Your task to perform on an android device: Add dell xps to the cart on bestbuy.com, then select checkout. Image 0: 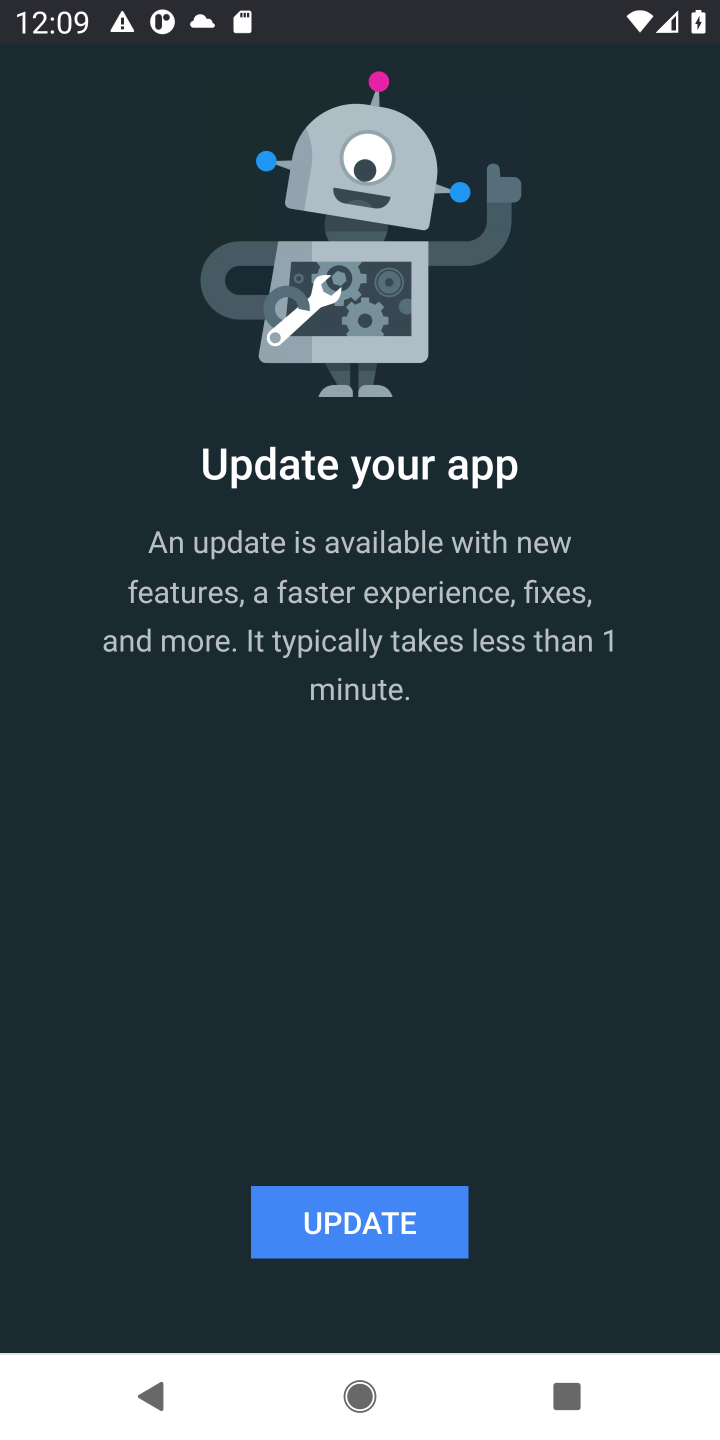
Step 0: press home button
Your task to perform on an android device: Add dell xps to the cart on bestbuy.com, then select checkout. Image 1: 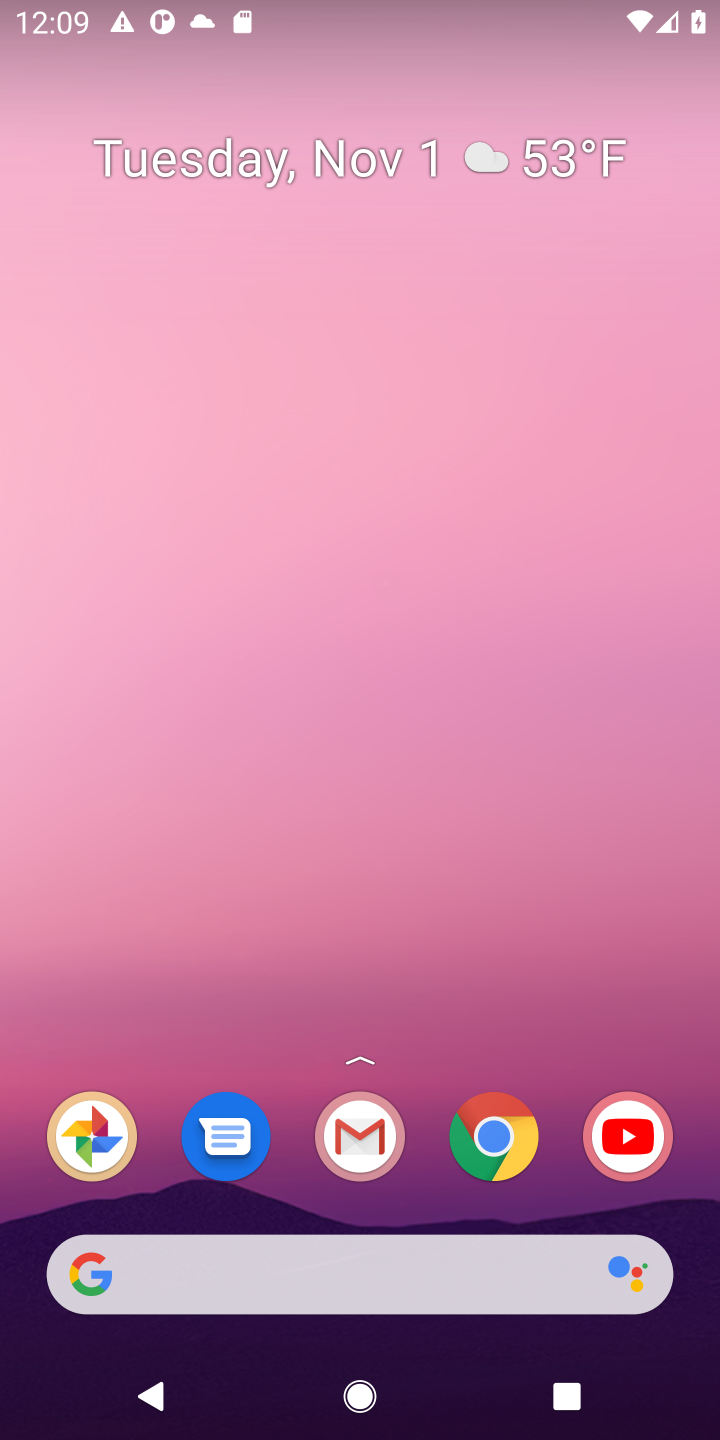
Step 1: click (124, 1268)
Your task to perform on an android device: Add dell xps to the cart on bestbuy.com, then select checkout. Image 2: 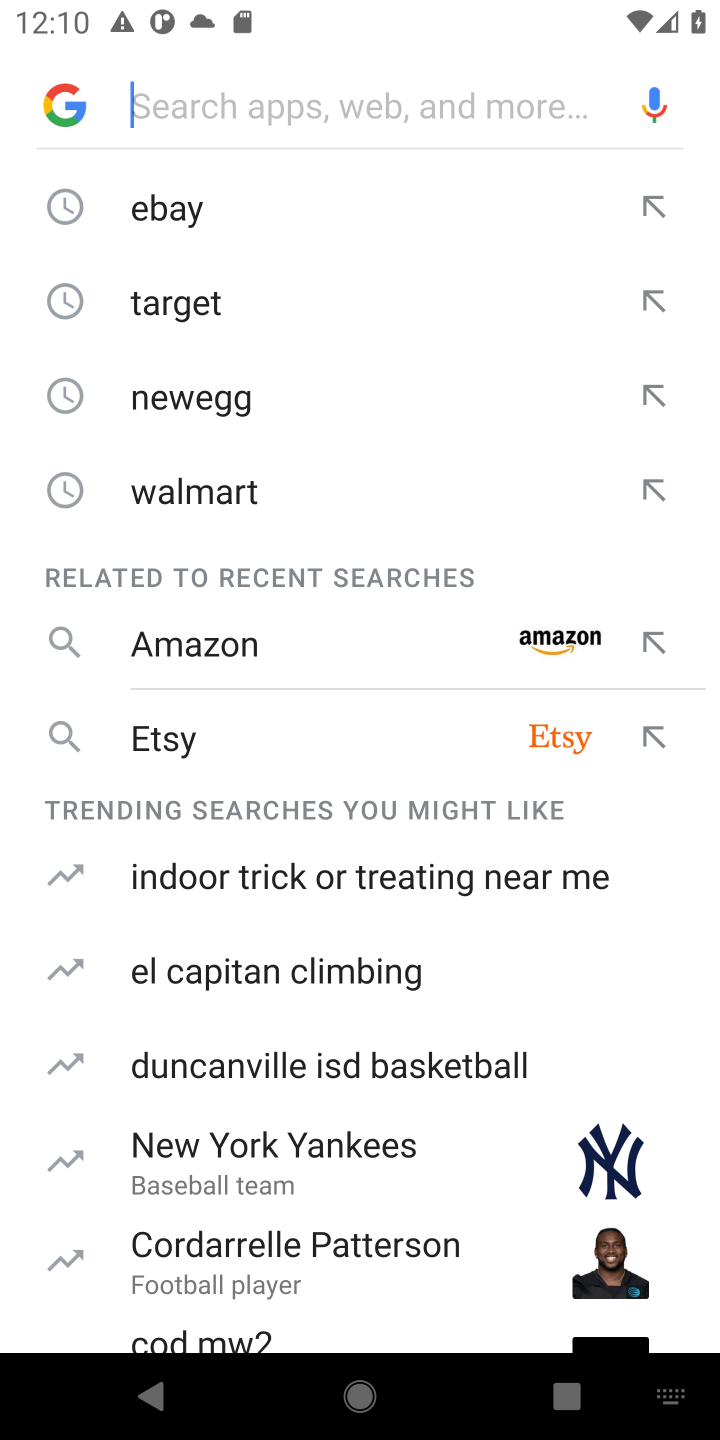
Step 2: type "bestbuy.com"
Your task to perform on an android device: Add dell xps to the cart on bestbuy.com, then select checkout. Image 3: 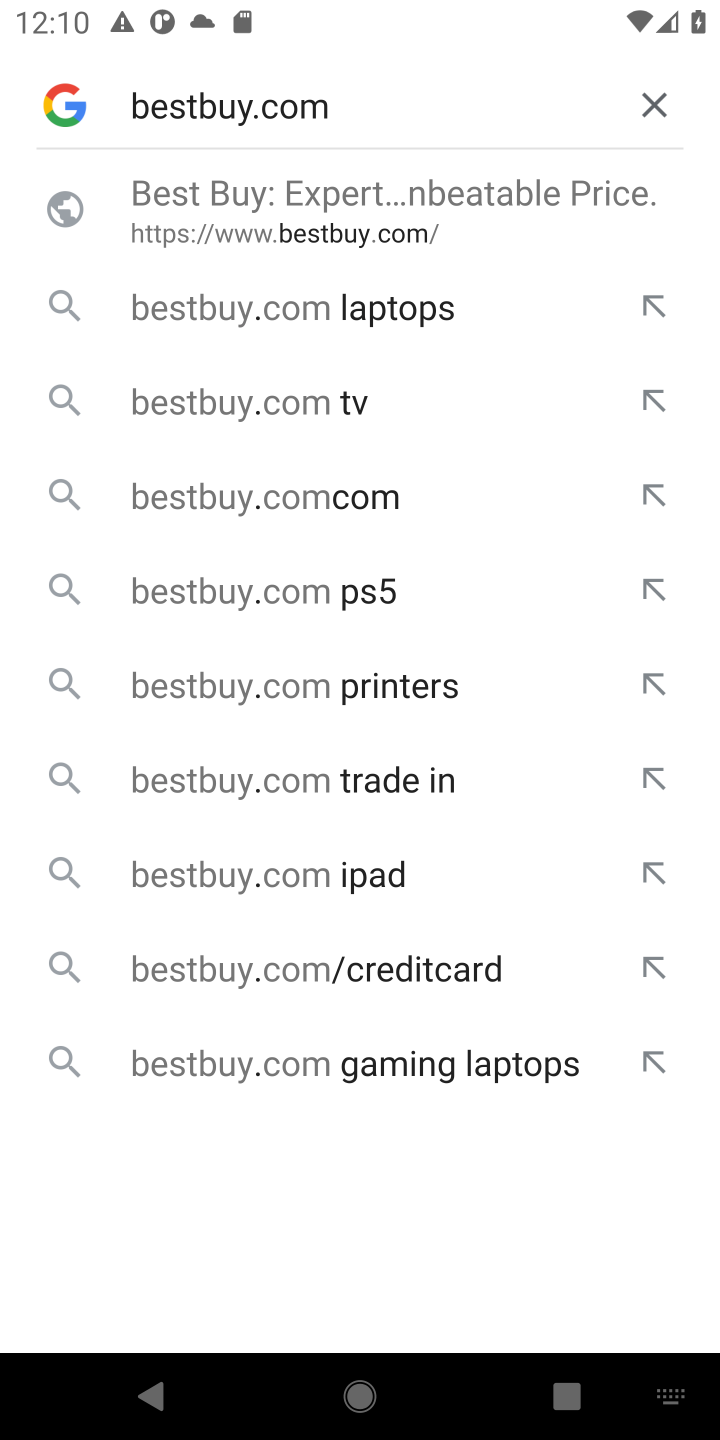
Step 3: press enter
Your task to perform on an android device: Add dell xps to the cart on bestbuy.com, then select checkout. Image 4: 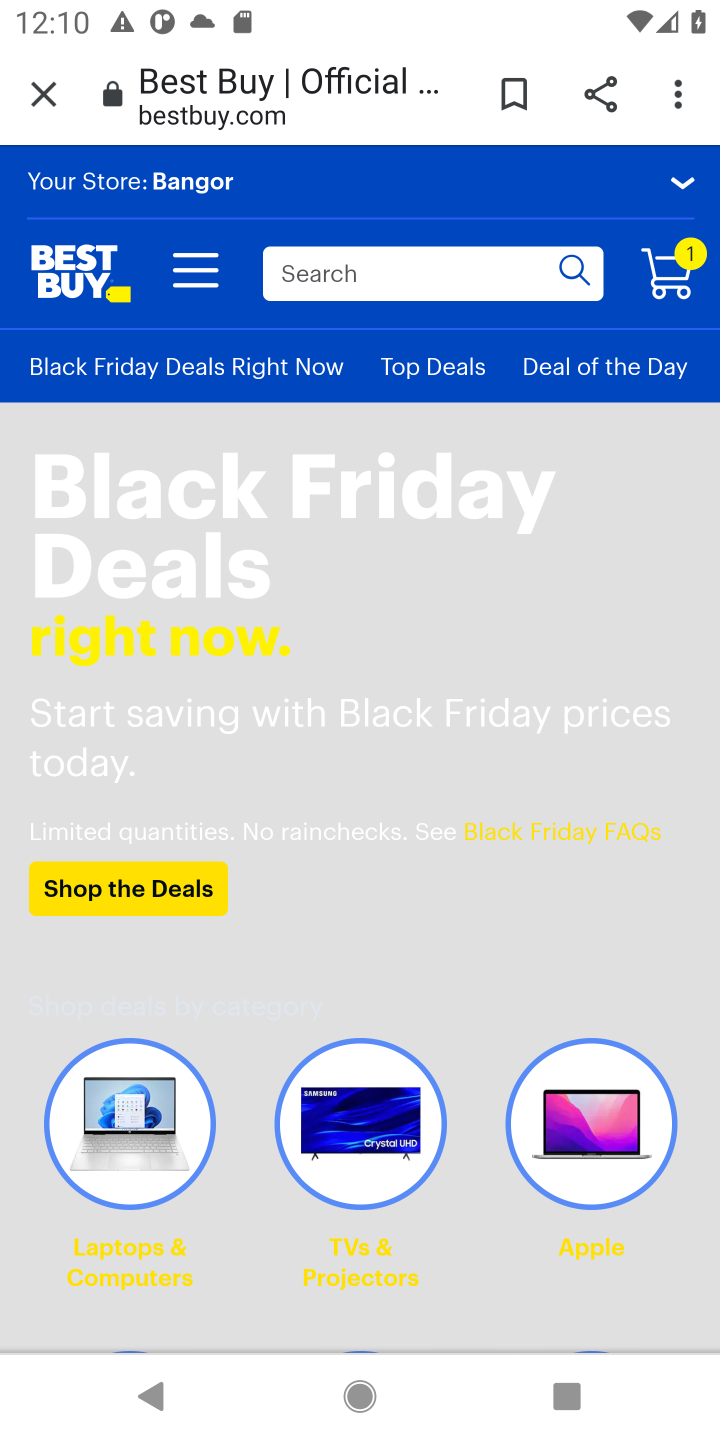
Step 4: click (316, 265)
Your task to perform on an android device: Add dell xps to the cart on bestbuy.com, then select checkout. Image 5: 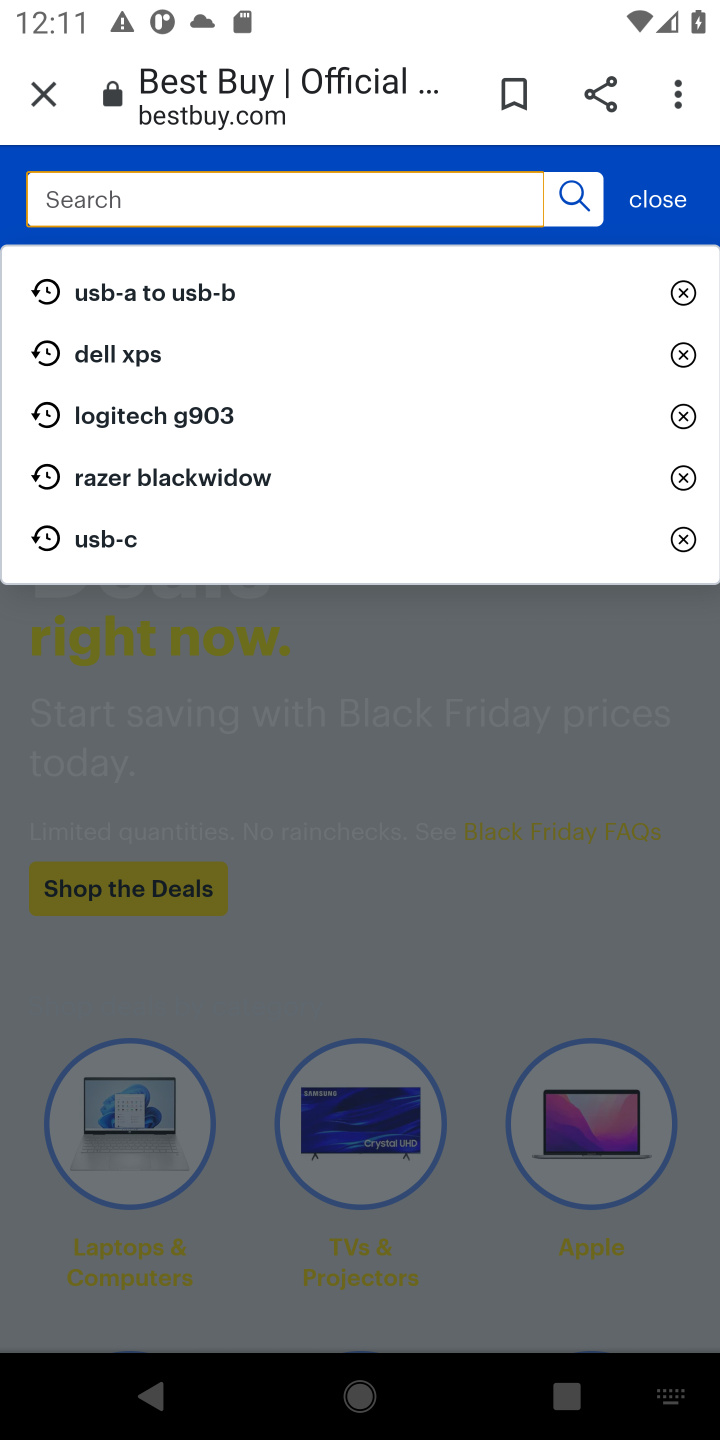
Step 5: press enter
Your task to perform on an android device: Add dell xps to the cart on bestbuy.com, then select checkout. Image 6: 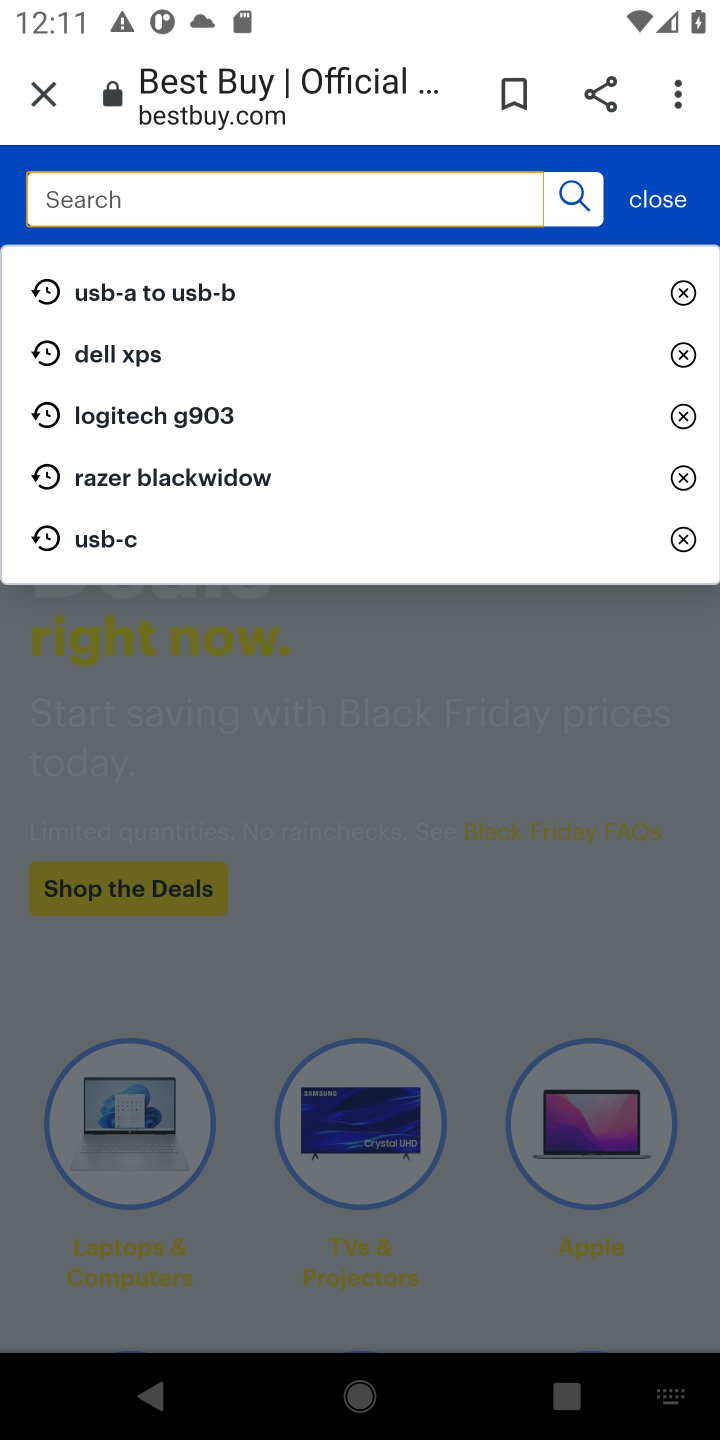
Step 6: type "dell xps"
Your task to perform on an android device: Add dell xps to the cart on bestbuy.com, then select checkout. Image 7: 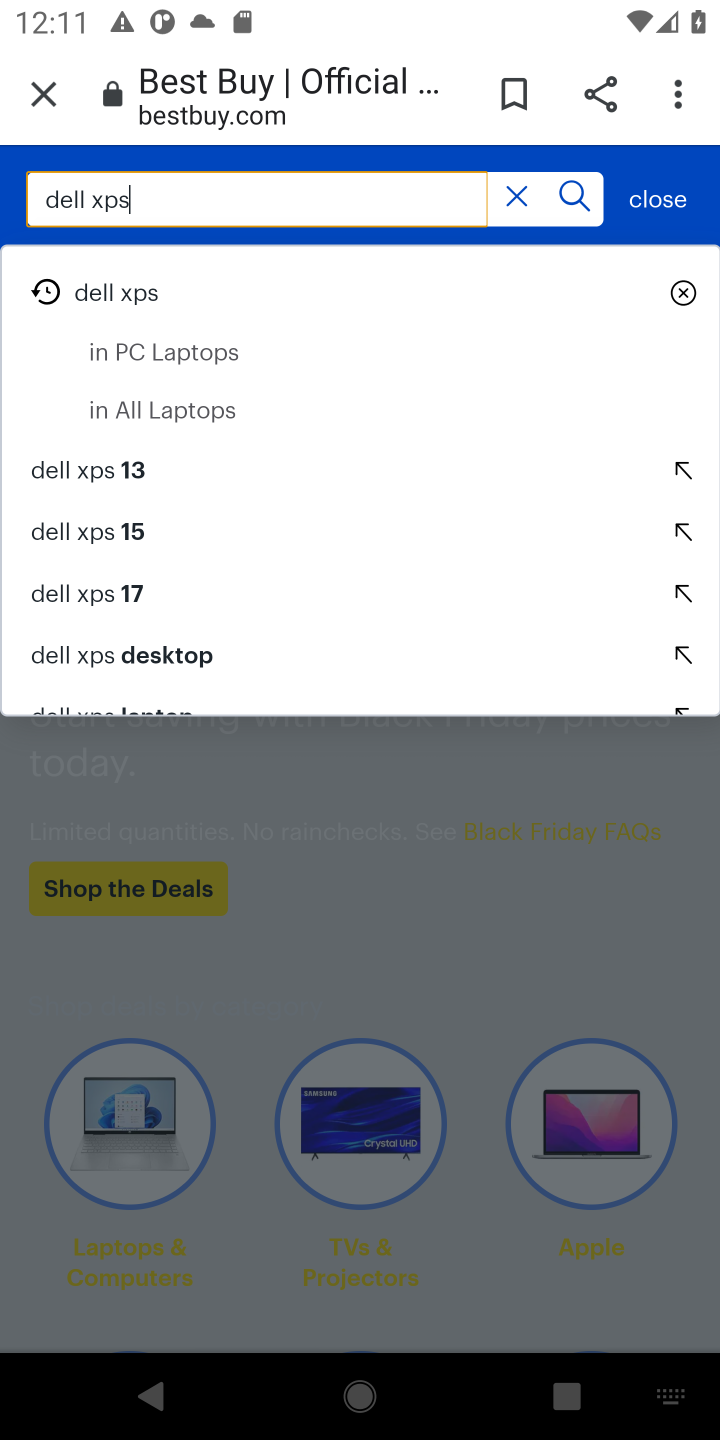
Step 7: press enter
Your task to perform on an android device: Add dell xps to the cart on bestbuy.com, then select checkout. Image 8: 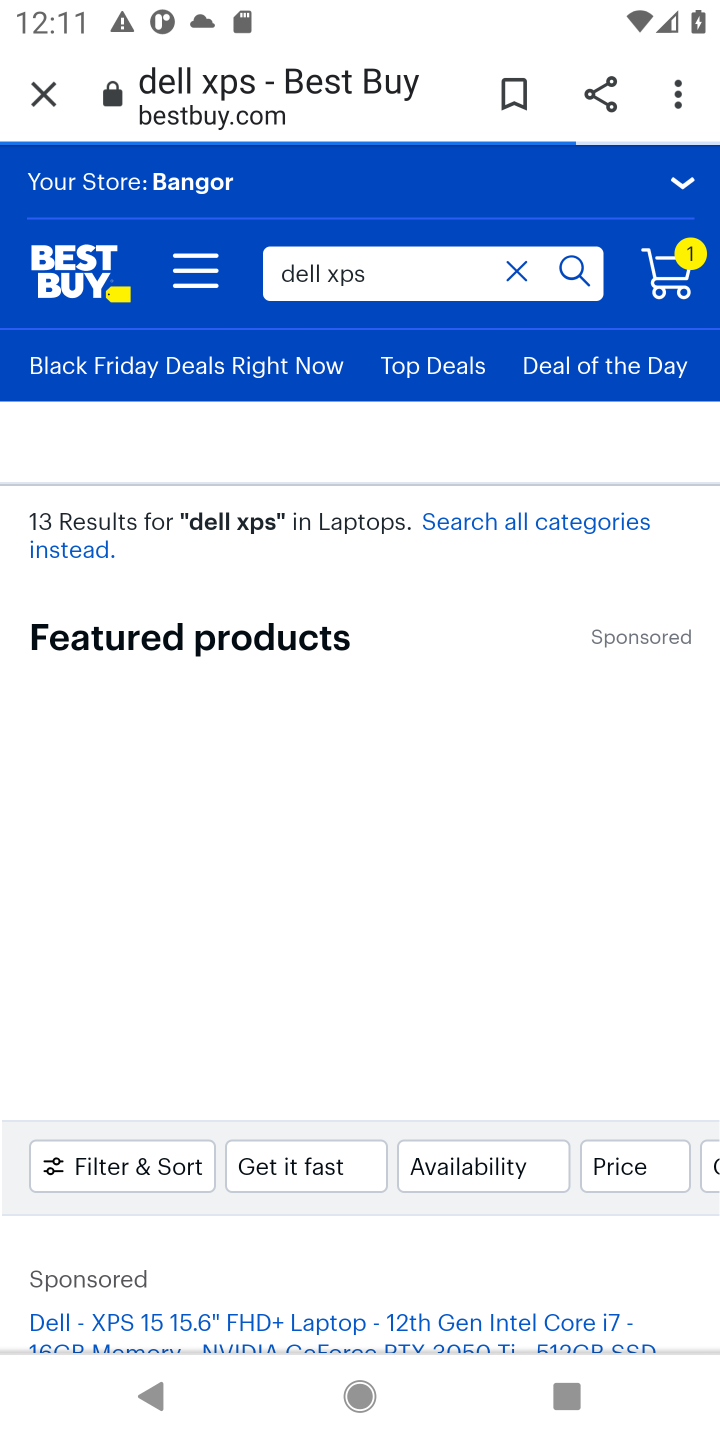
Step 8: drag from (503, 1203) to (494, 532)
Your task to perform on an android device: Add dell xps to the cart on bestbuy.com, then select checkout. Image 9: 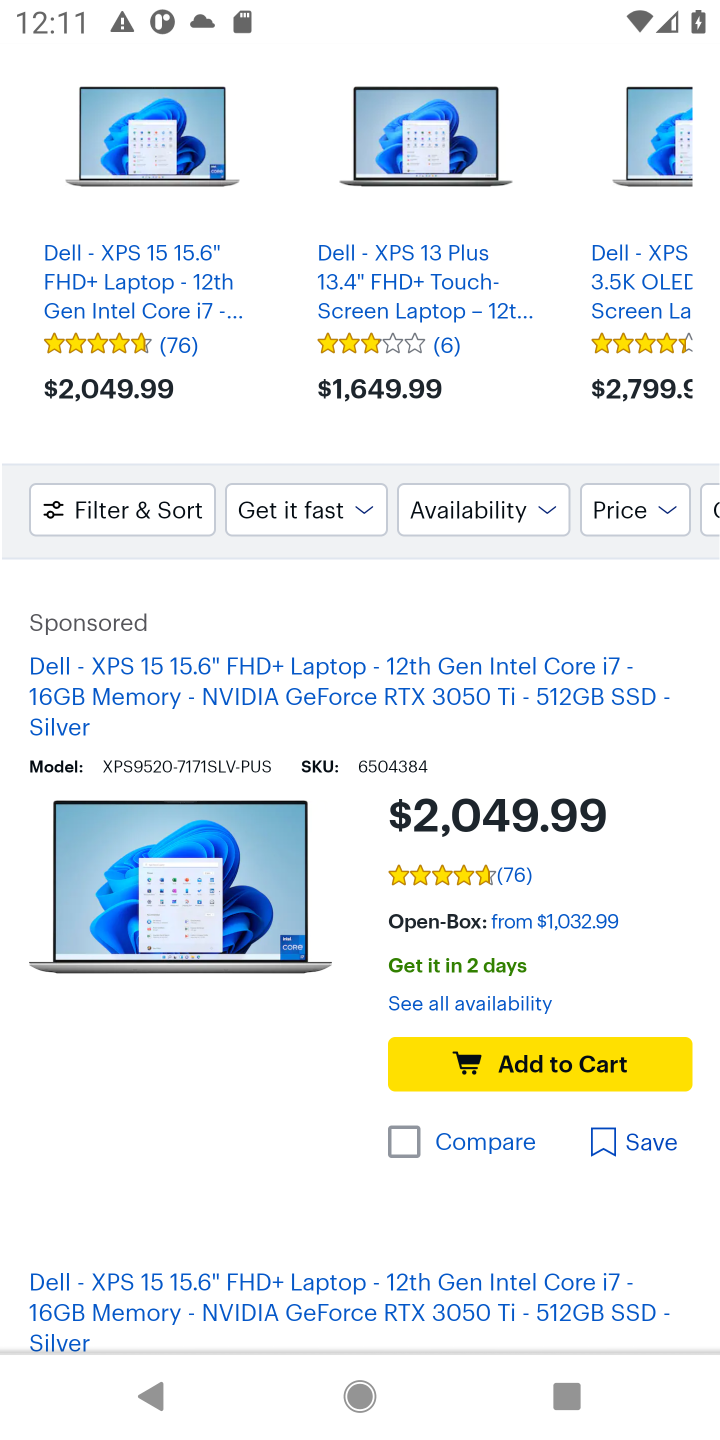
Step 9: click (514, 1033)
Your task to perform on an android device: Add dell xps to the cart on bestbuy.com, then select checkout. Image 10: 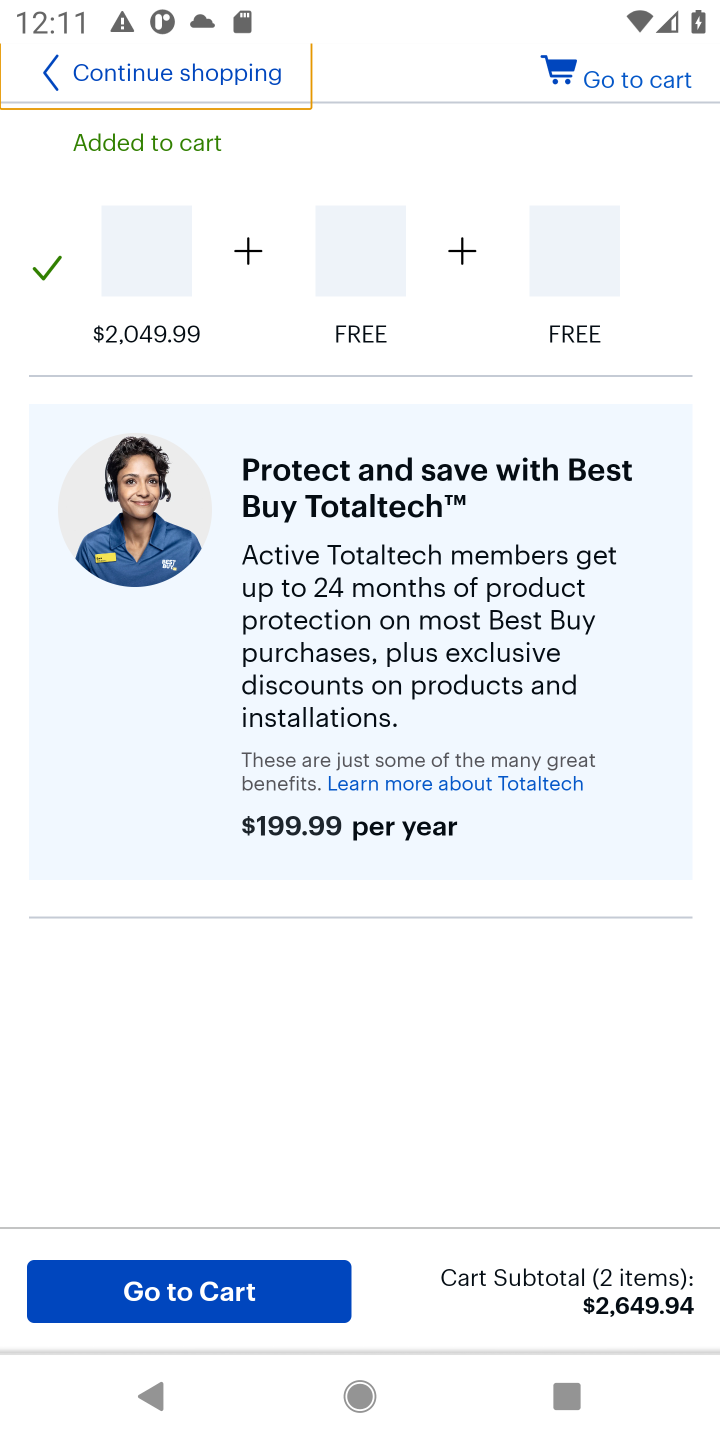
Step 10: click (178, 1294)
Your task to perform on an android device: Add dell xps to the cart on bestbuy.com, then select checkout. Image 11: 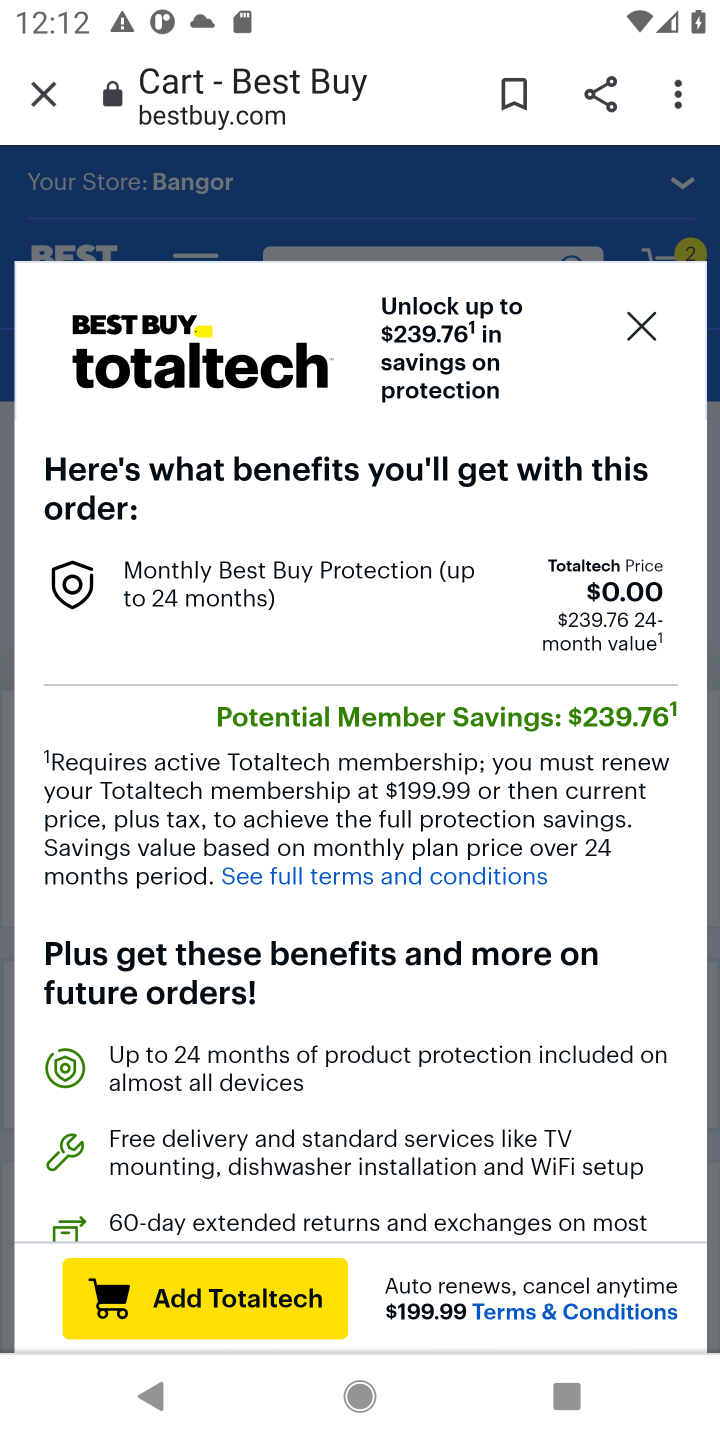
Step 11: click (640, 323)
Your task to perform on an android device: Add dell xps to the cart on bestbuy.com, then select checkout. Image 12: 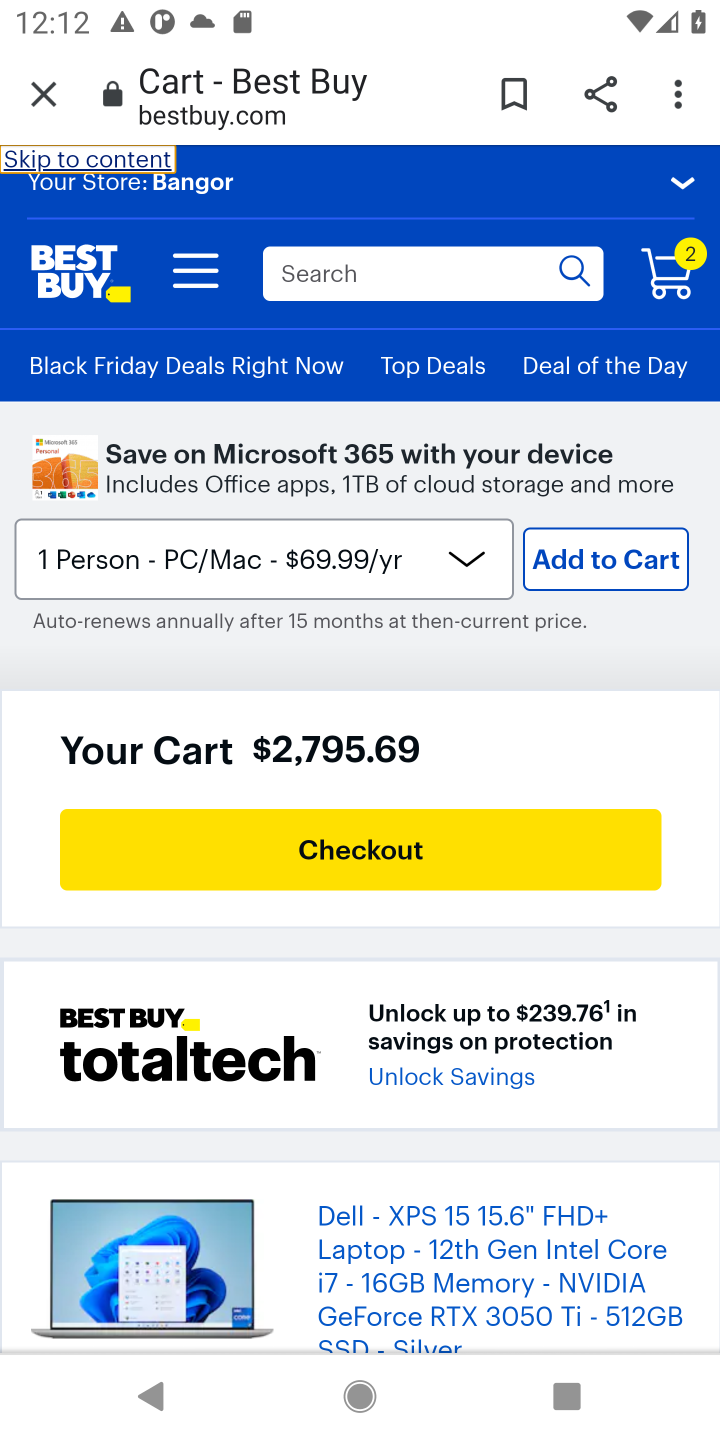
Step 12: click (305, 850)
Your task to perform on an android device: Add dell xps to the cart on bestbuy.com, then select checkout. Image 13: 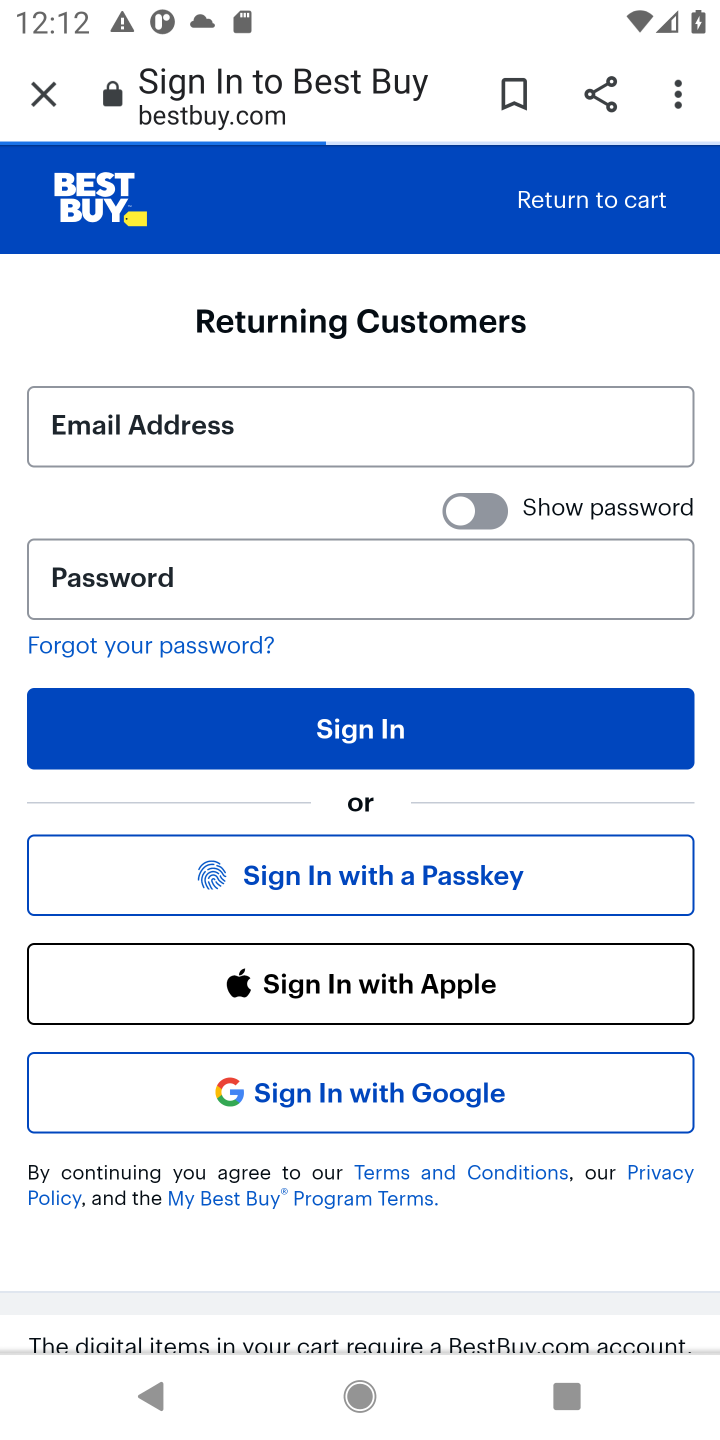
Step 13: task complete